Your task to perform on an android device: Open Google Chrome and open the bookmarks view Image 0: 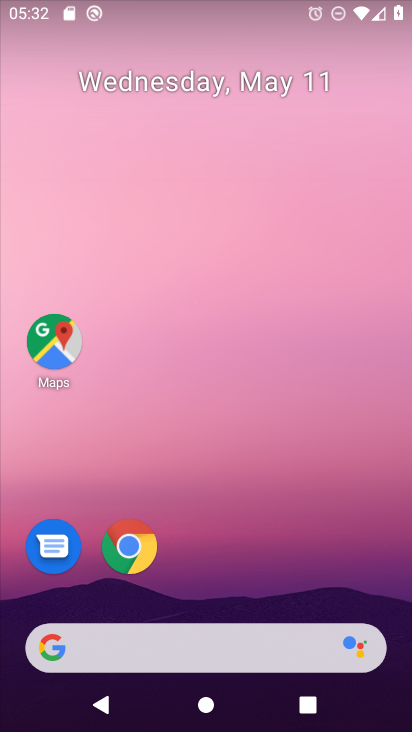
Step 0: drag from (300, 632) to (305, 0)
Your task to perform on an android device: Open Google Chrome and open the bookmarks view Image 1: 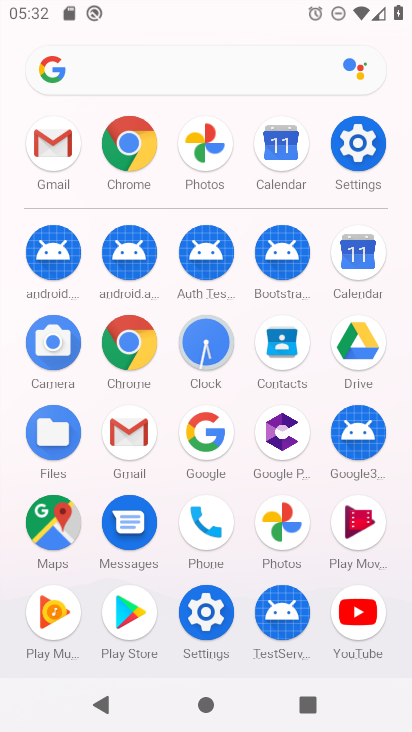
Step 1: click (126, 340)
Your task to perform on an android device: Open Google Chrome and open the bookmarks view Image 2: 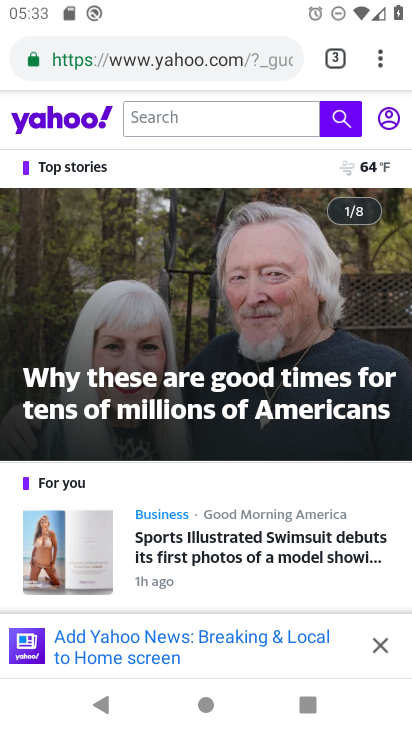
Step 2: task complete